Your task to perform on an android device: Go to display settings Image 0: 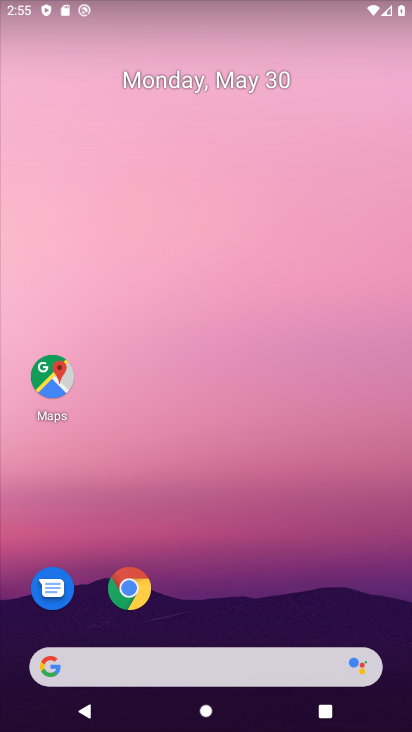
Step 0: drag from (318, 486) to (226, 36)
Your task to perform on an android device: Go to display settings Image 1: 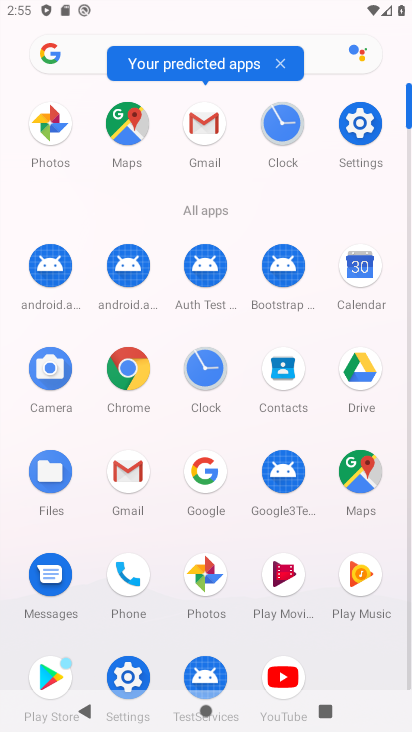
Step 1: drag from (5, 496) to (4, 243)
Your task to perform on an android device: Go to display settings Image 2: 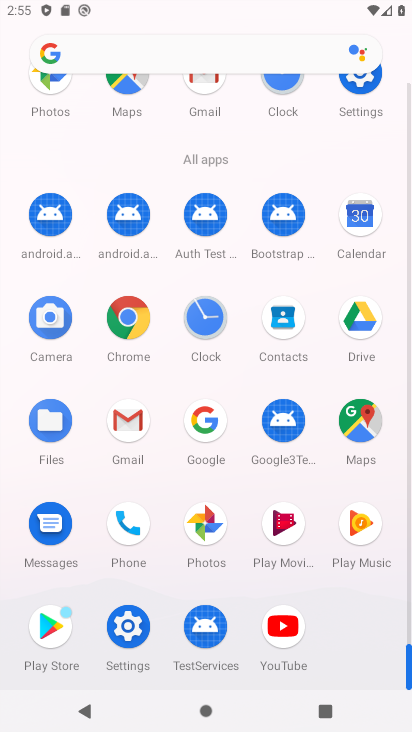
Step 2: drag from (0, 587) to (12, 244)
Your task to perform on an android device: Go to display settings Image 3: 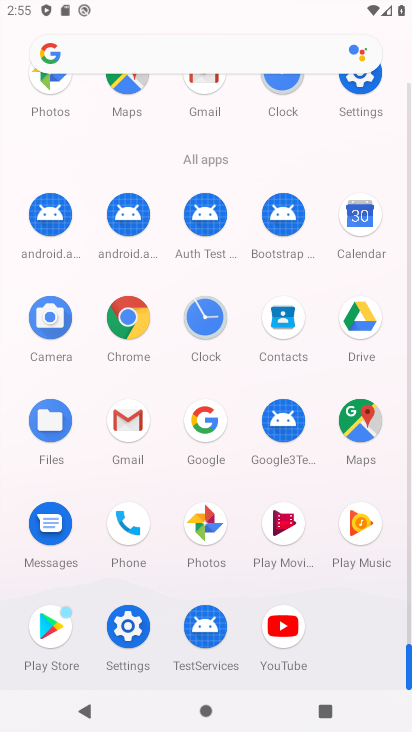
Step 3: click (126, 626)
Your task to perform on an android device: Go to display settings Image 4: 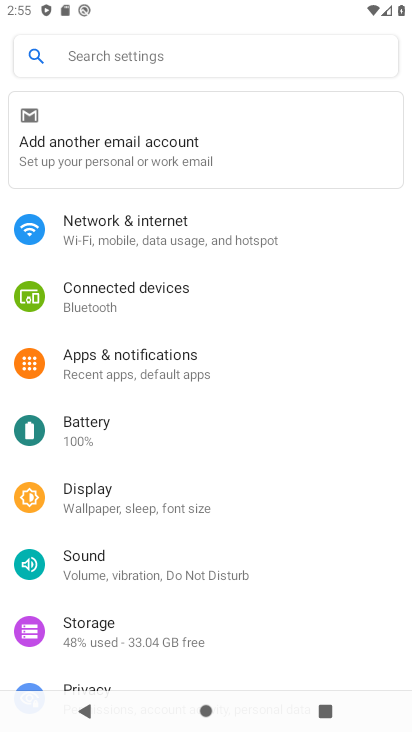
Step 4: click (102, 498)
Your task to perform on an android device: Go to display settings Image 5: 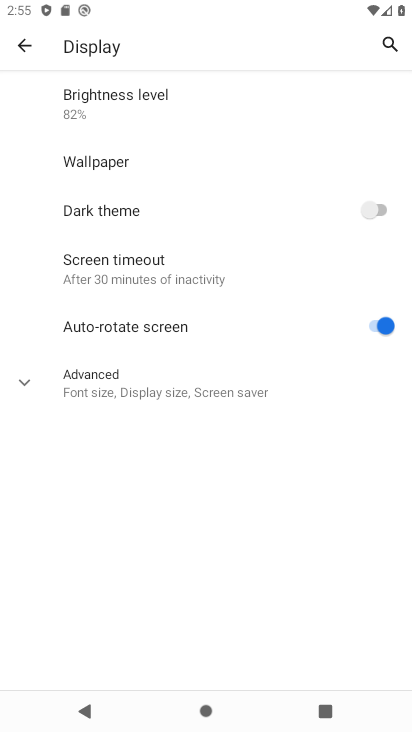
Step 5: click (18, 378)
Your task to perform on an android device: Go to display settings Image 6: 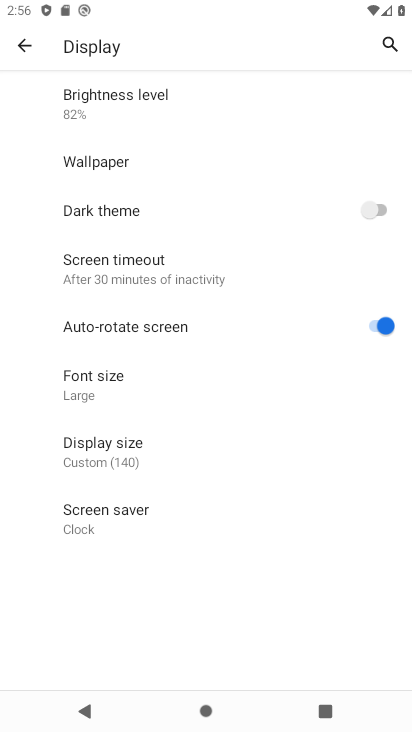
Step 6: task complete